Your task to perform on an android device: Go to eBay Image 0: 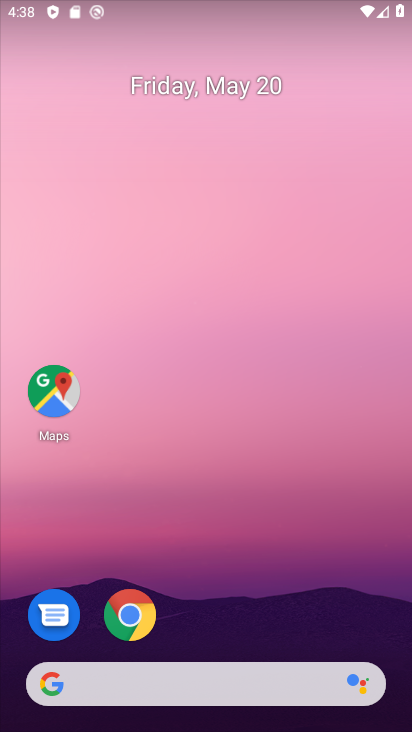
Step 0: drag from (187, 663) to (344, 5)
Your task to perform on an android device: Go to eBay Image 1: 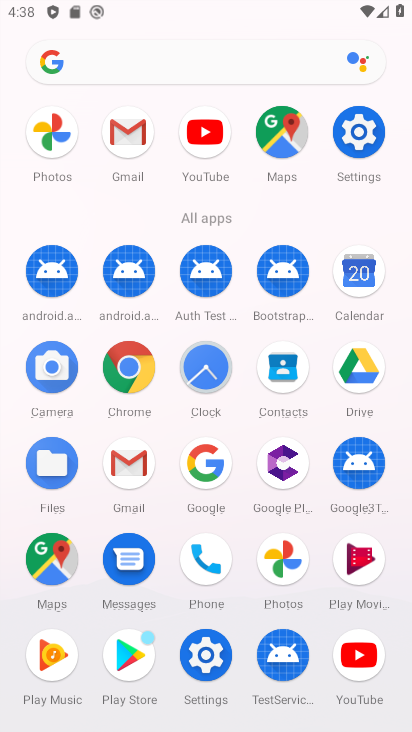
Step 1: click (142, 375)
Your task to perform on an android device: Go to eBay Image 2: 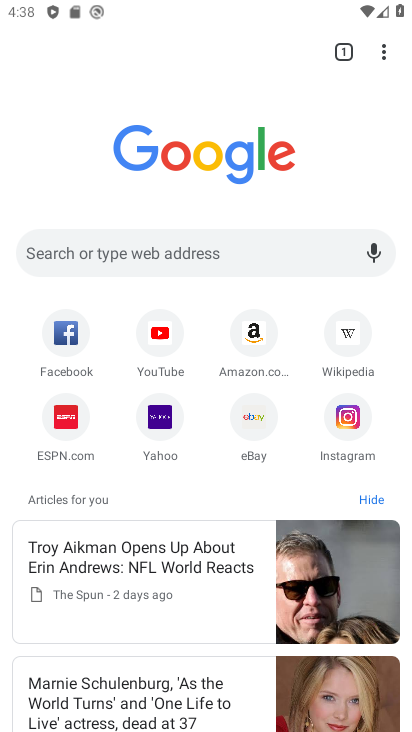
Step 2: click (134, 244)
Your task to perform on an android device: Go to eBay Image 3: 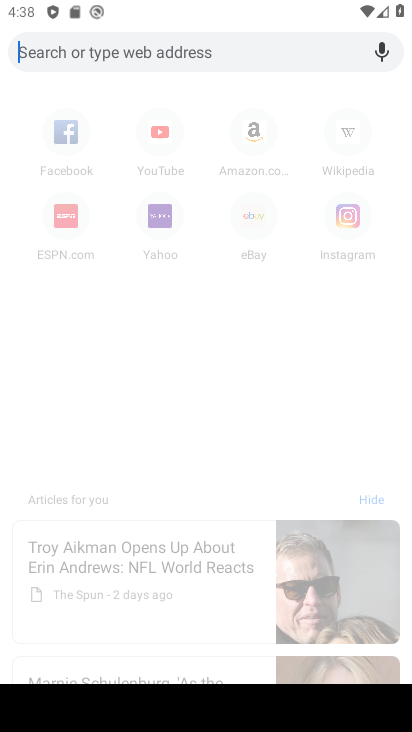
Step 3: press back button
Your task to perform on an android device: Go to eBay Image 4: 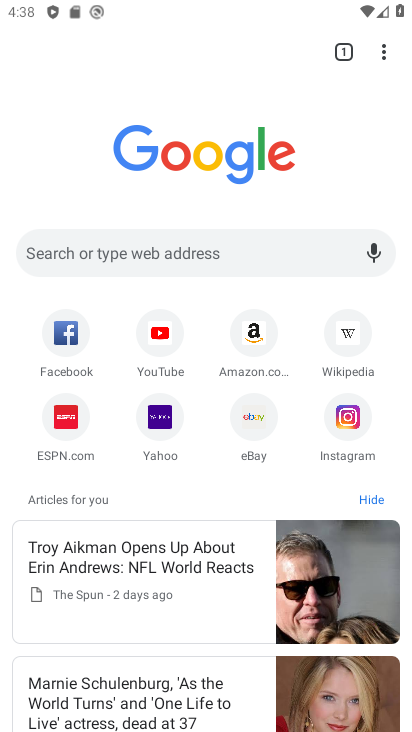
Step 4: click (258, 419)
Your task to perform on an android device: Go to eBay Image 5: 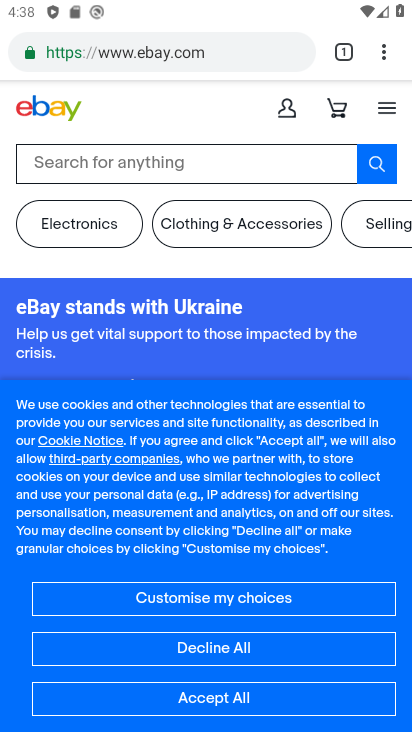
Step 5: task complete